Your task to perform on an android device: add a contact Image 0: 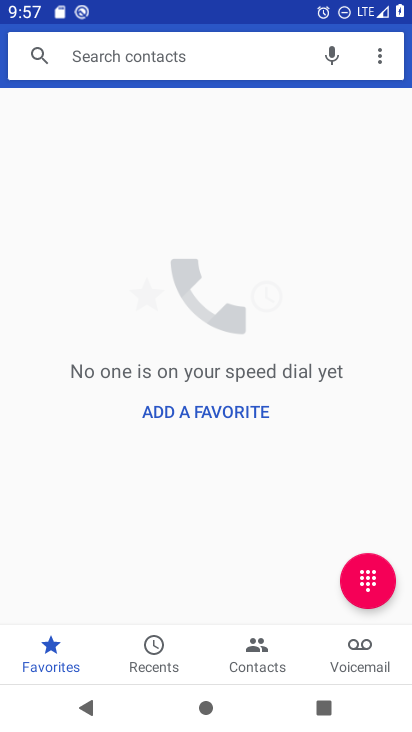
Step 0: press home button
Your task to perform on an android device: add a contact Image 1: 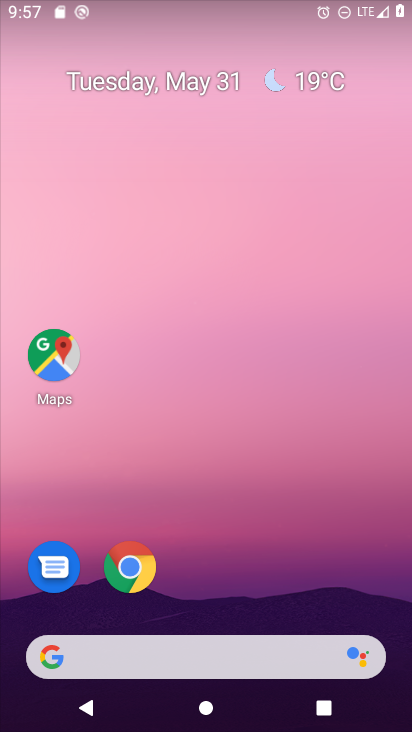
Step 1: drag from (239, 633) to (309, 142)
Your task to perform on an android device: add a contact Image 2: 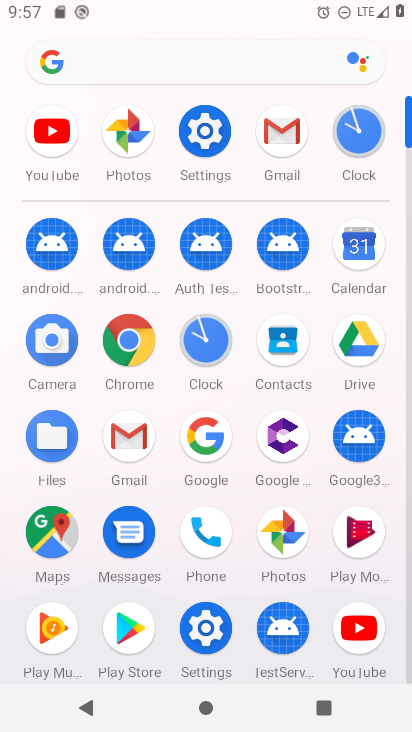
Step 2: click (298, 348)
Your task to perform on an android device: add a contact Image 3: 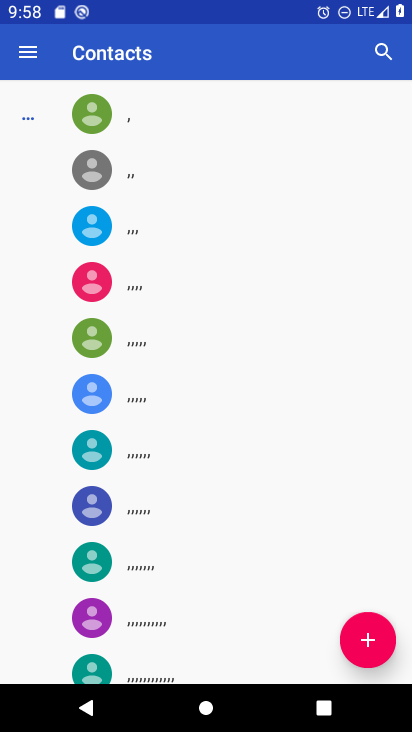
Step 3: click (376, 643)
Your task to perform on an android device: add a contact Image 4: 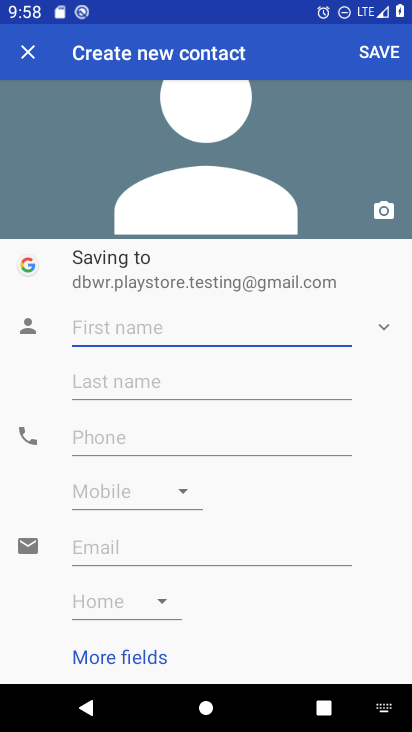
Step 4: type "jhelam"
Your task to perform on an android device: add a contact Image 5: 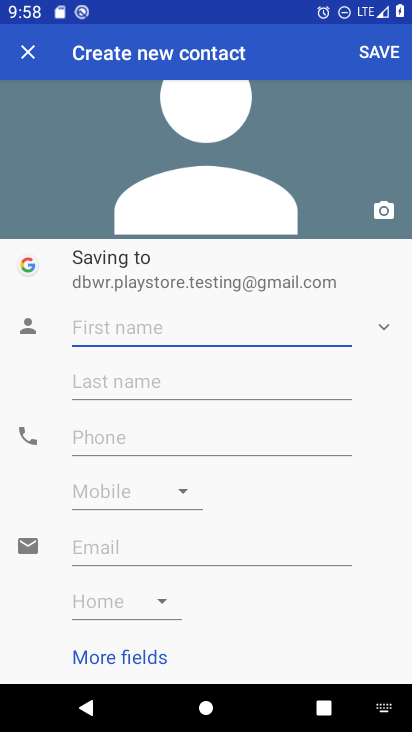
Step 5: click (144, 391)
Your task to perform on an android device: add a contact Image 6: 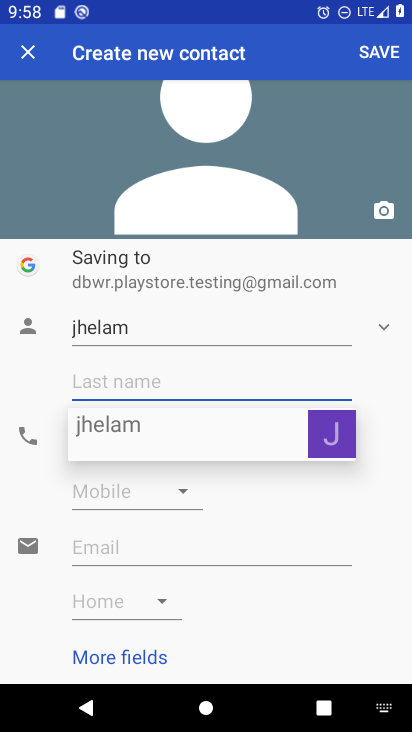
Step 6: type "jhu"
Your task to perform on an android device: add a contact Image 7: 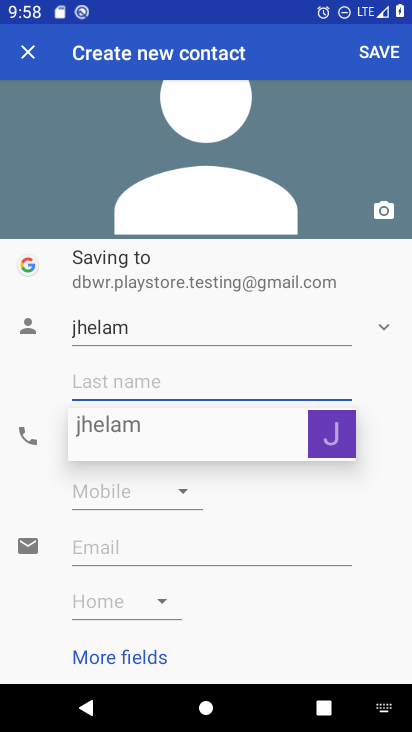
Step 7: click (137, 492)
Your task to perform on an android device: add a contact Image 8: 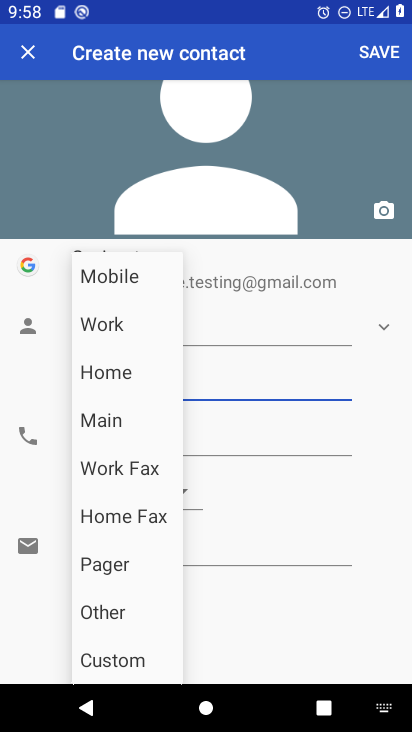
Step 8: click (398, 368)
Your task to perform on an android device: add a contact Image 9: 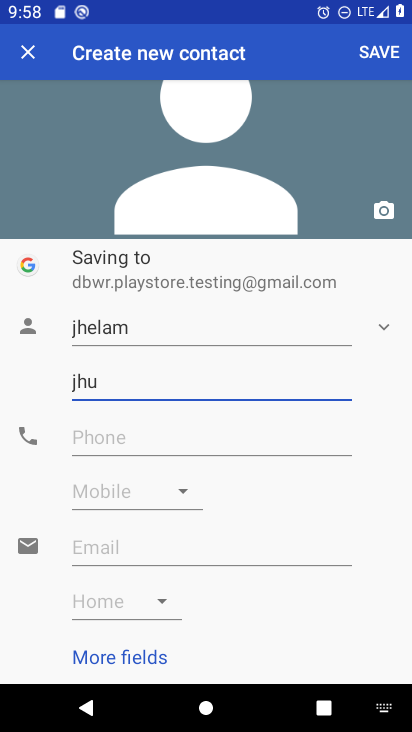
Step 9: click (80, 430)
Your task to perform on an android device: add a contact Image 10: 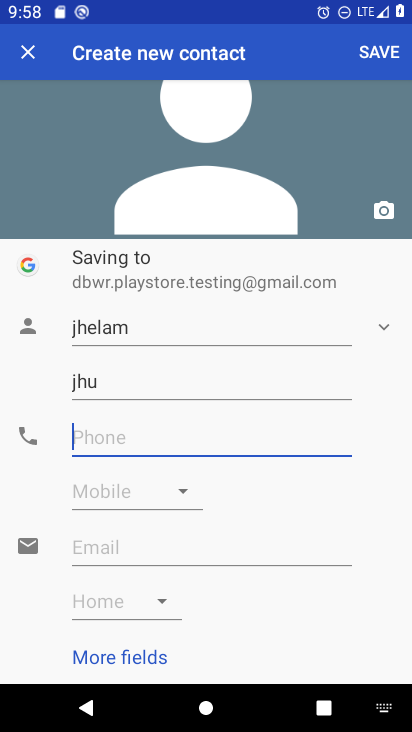
Step 10: type "7675747372"
Your task to perform on an android device: add a contact Image 11: 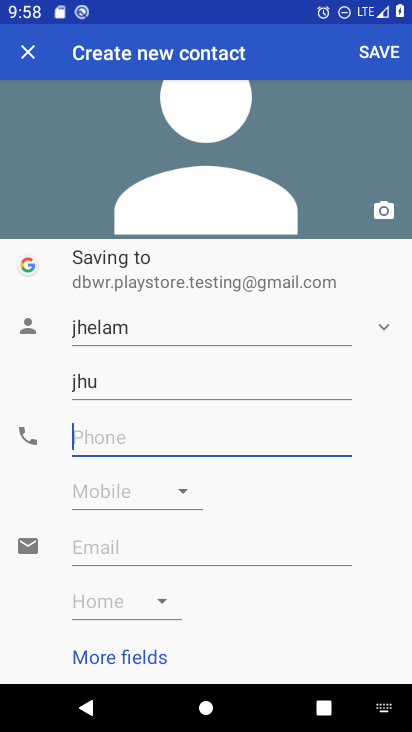
Step 11: click (124, 488)
Your task to perform on an android device: add a contact Image 12: 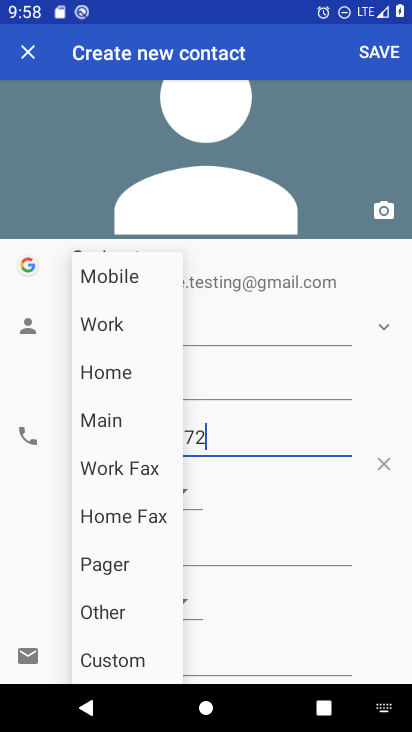
Step 12: click (97, 269)
Your task to perform on an android device: add a contact Image 13: 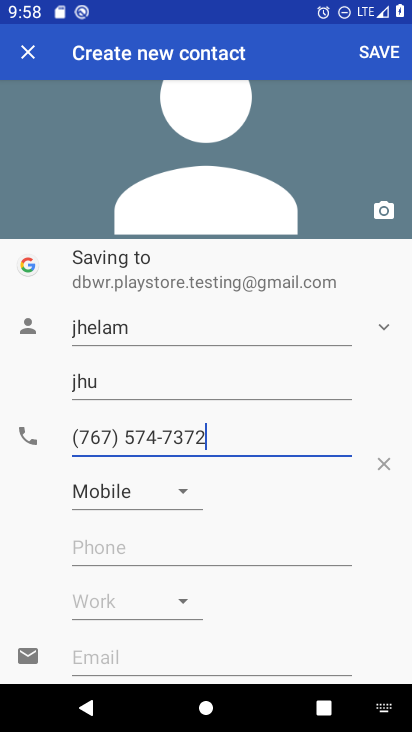
Step 13: task complete